Your task to perform on an android device: Go to Amazon Image 0: 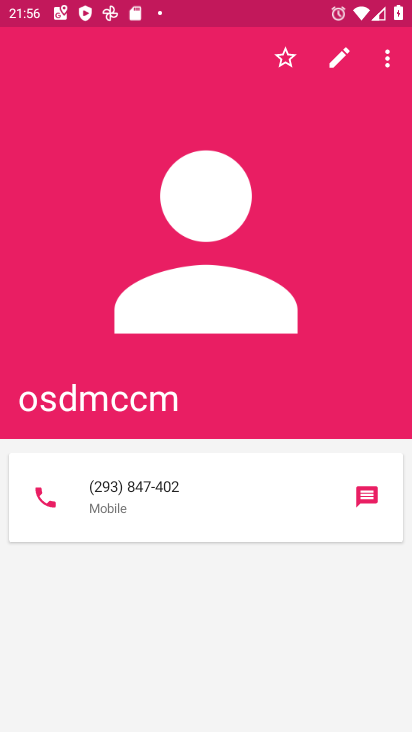
Step 0: press home button
Your task to perform on an android device: Go to Amazon Image 1: 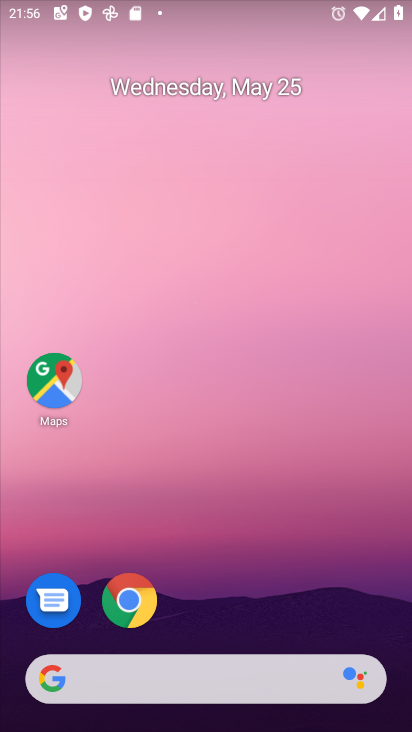
Step 1: drag from (316, 563) to (294, 179)
Your task to perform on an android device: Go to Amazon Image 2: 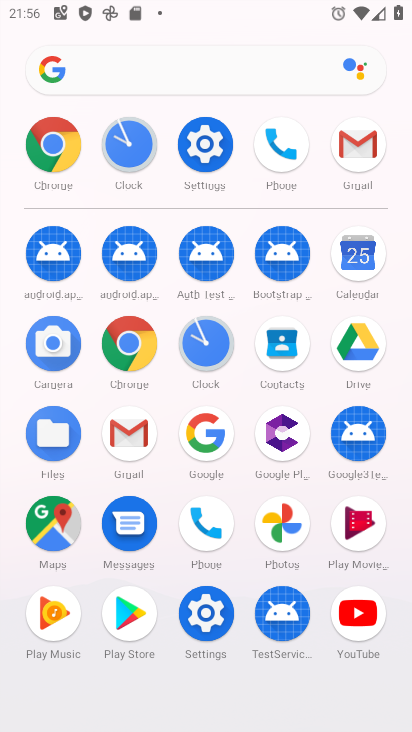
Step 2: click (141, 356)
Your task to perform on an android device: Go to Amazon Image 3: 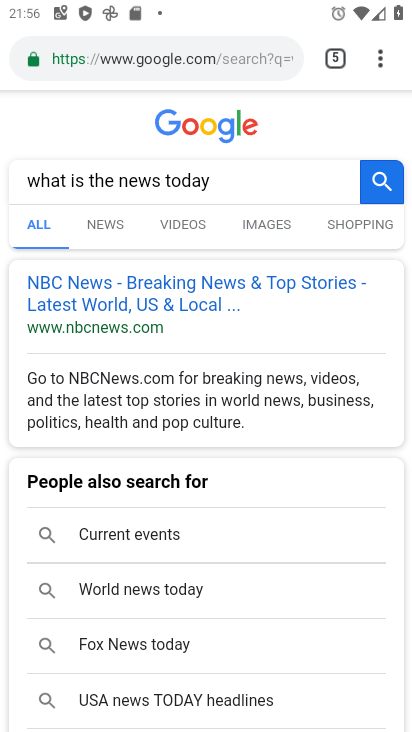
Step 3: click (325, 58)
Your task to perform on an android device: Go to Amazon Image 4: 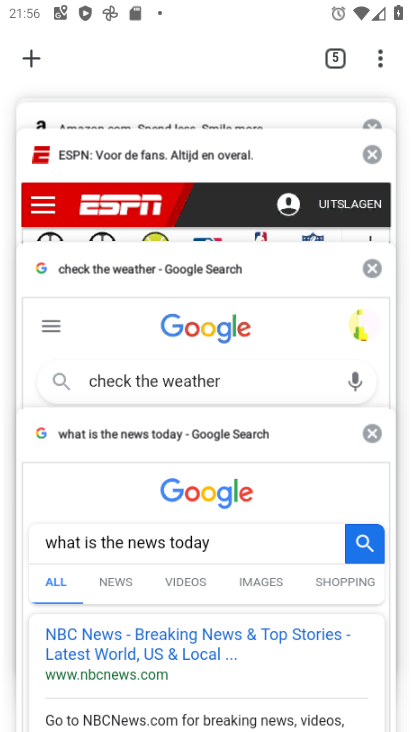
Step 4: click (31, 62)
Your task to perform on an android device: Go to Amazon Image 5: 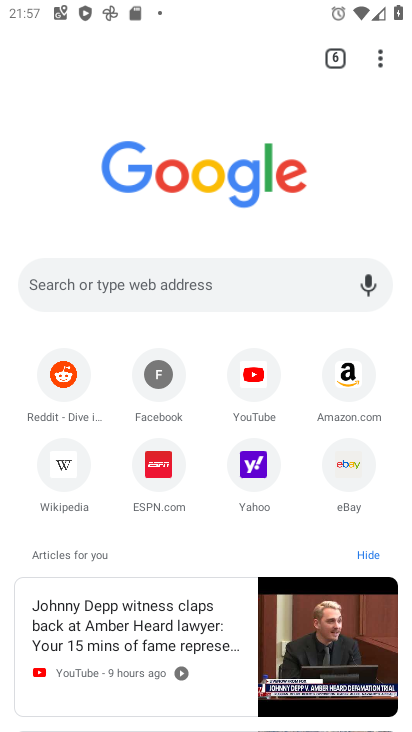
Step 5: click (343, 372)
Your task to perform on an android device: Go to Amazon Image 6: 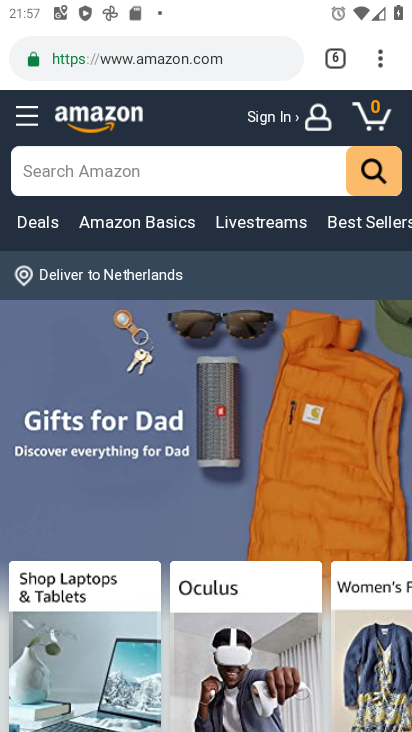
Step 6: task complete